Your task to perform on an android device: toggle notification dots Image 0: 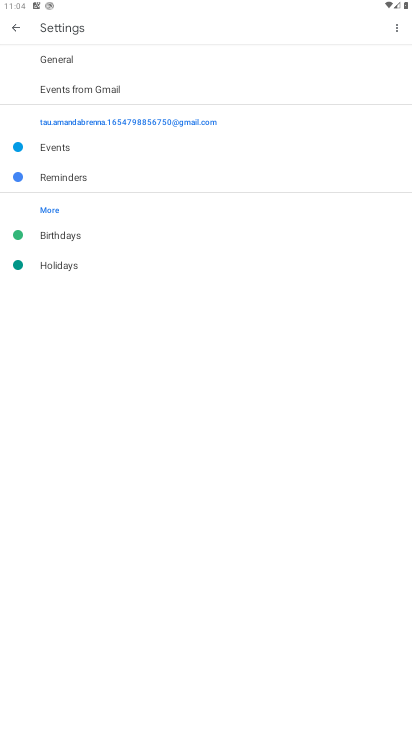
Step 0: press home button
Your task to perform on an android device: toggle notification dots Image 1: 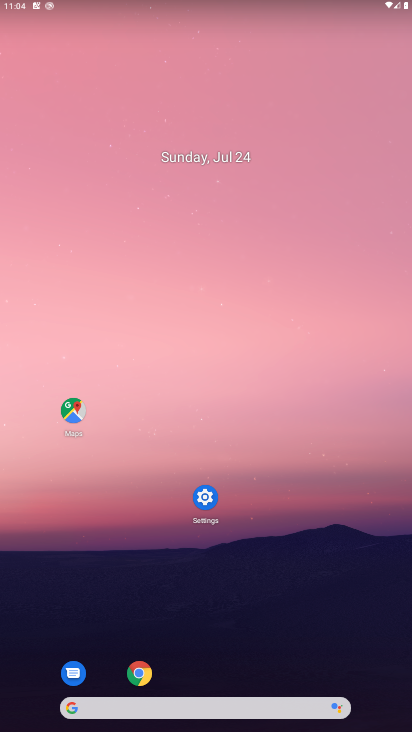
Step 1: click (210, 493)
Your task to perform on an android device: toggle notification dots Image 2: 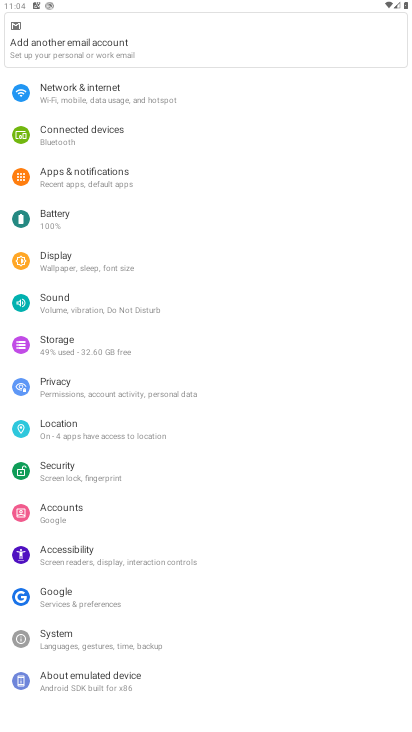
Step 2: task complete